Your task to perform on an android device: change notifications settings Image 0: 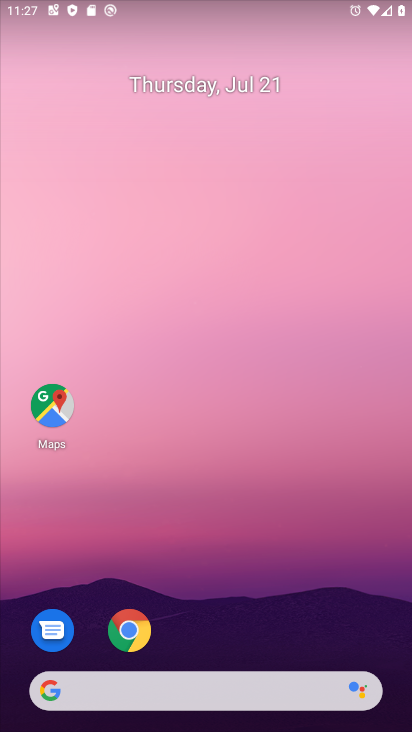
Step 0: drag from (232, 593) to (229, 172)
Your task to perform on an android device: change notifications settings Image 1: 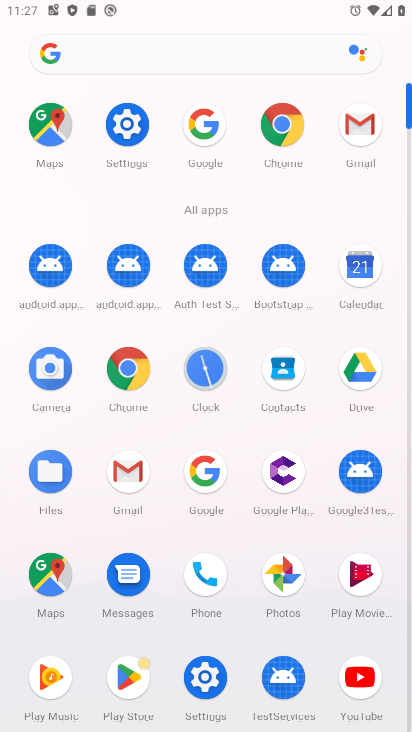
Step 1: click (206, 678)
Your task to perform on an android device: change notifications settings Image 2: 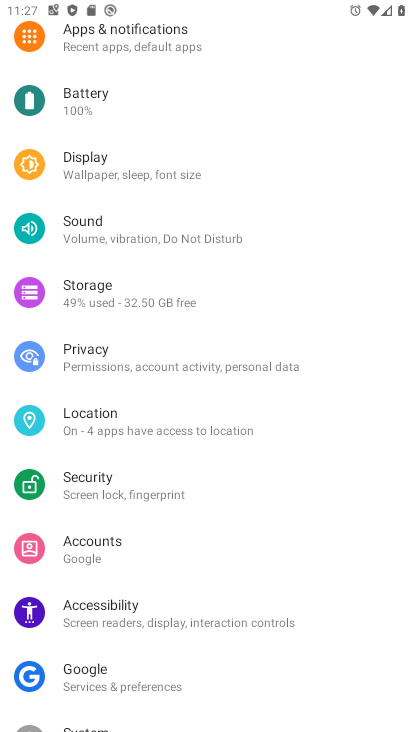
Step 2: drag from (169, 550) to (167, 237)
Your task to perform on an android device: change notifications settings Image 3: 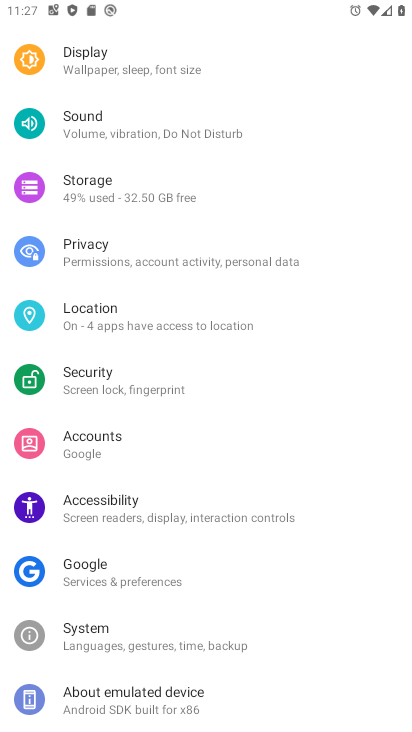
Step 3: drag from (126, 133) to (125, 482)
Your task to perform on an android device: change notifications settings Image 4: 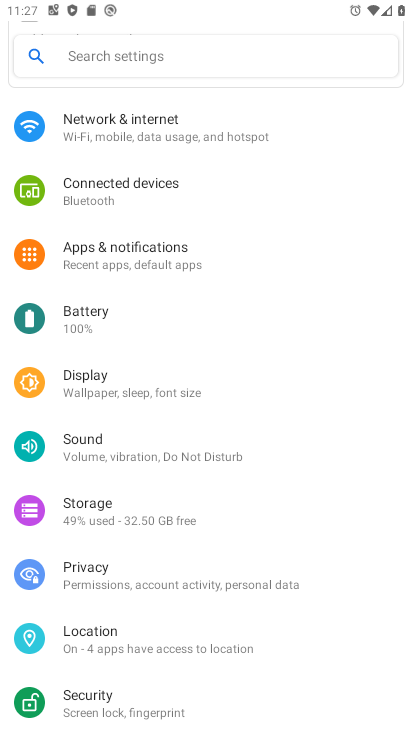
Step 4: click (127, 268)
Your task to perform on an android device: change notifications settings Image 5: 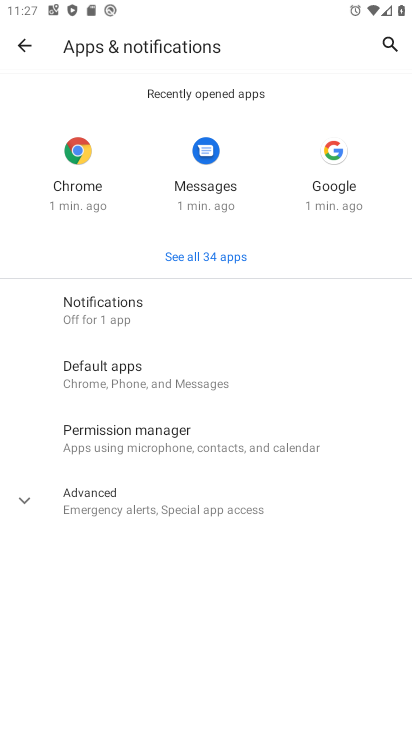
Step 5: click (144, 325)
Your task to perform on an android device: change notifications settings Image 6: 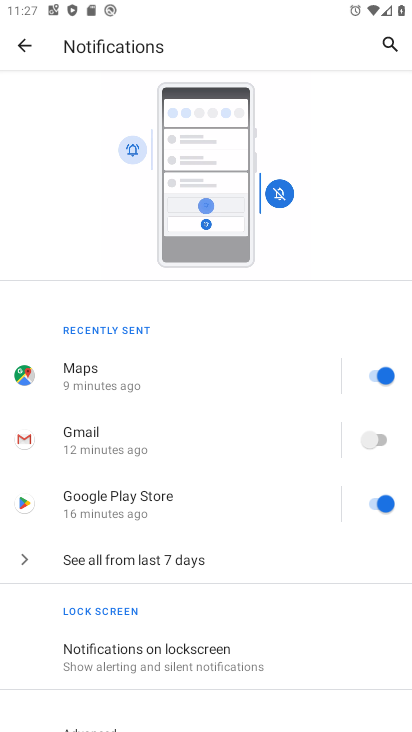
Step 6: drag from (188, 600) to (178, 321)
Your task to perform on an android device: change notifications settings Image 7: 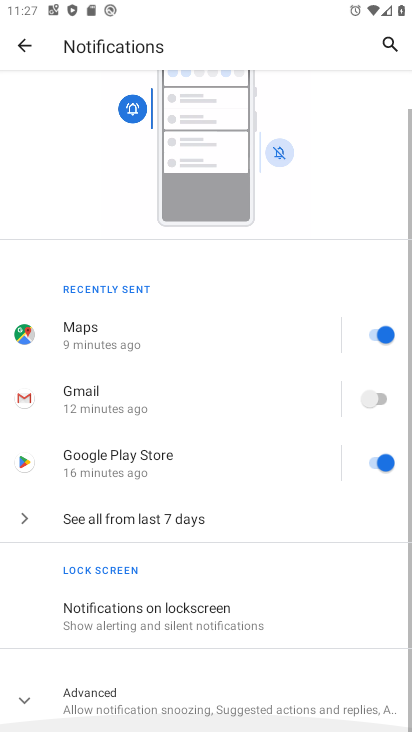
Step 7: click (157, 504)
Your task to perform on an android device: change notifications settings Image 8: 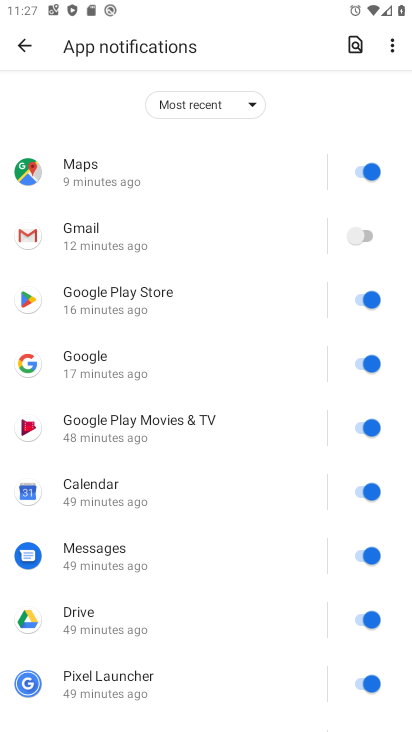
Step 8: click (203, 105)
Your task to perform on an android device: change notifications settings Image 9: 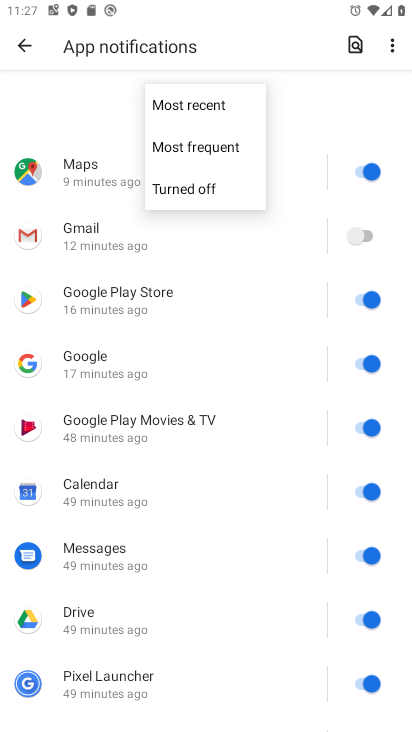
Step 9: click (213, 185)
Your task to perform on an android device: change notifications settings Image 10: 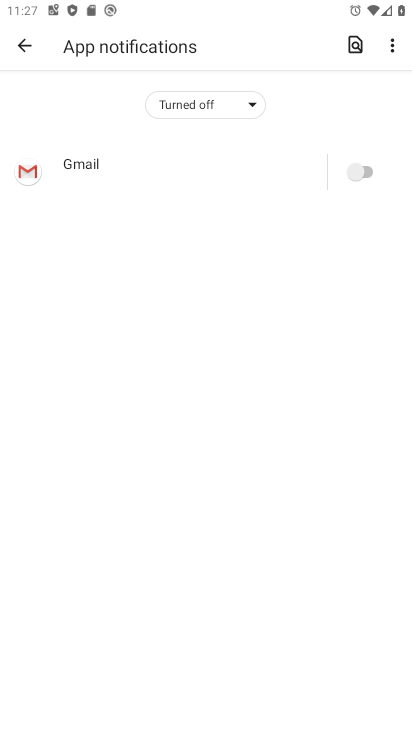
Step 10: task complete